Your task to perform on an android device: Open Google Image 0: 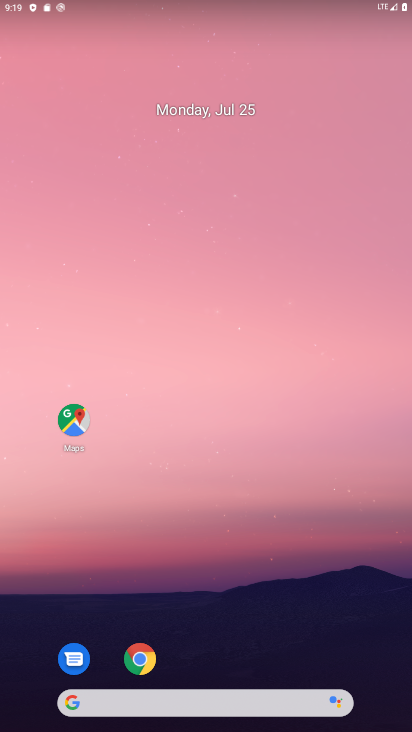
Step 0: click (69, 702)
Your task to perform on an android device: Open Google Image 1: 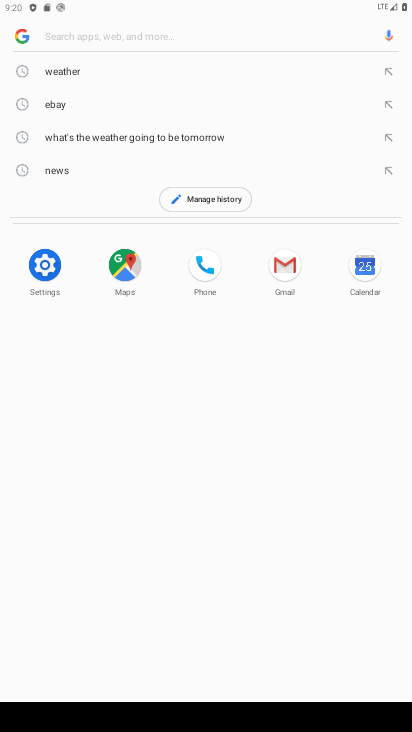
Step 1: click (25, 36)
Your task to perform on an android device: Open Google Image 2: 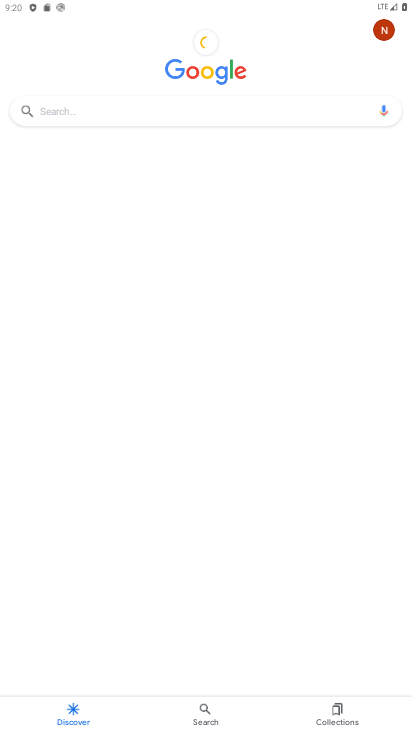
Step 2: task complete